Your task to perform on an android device: Open my contact list Image 0: 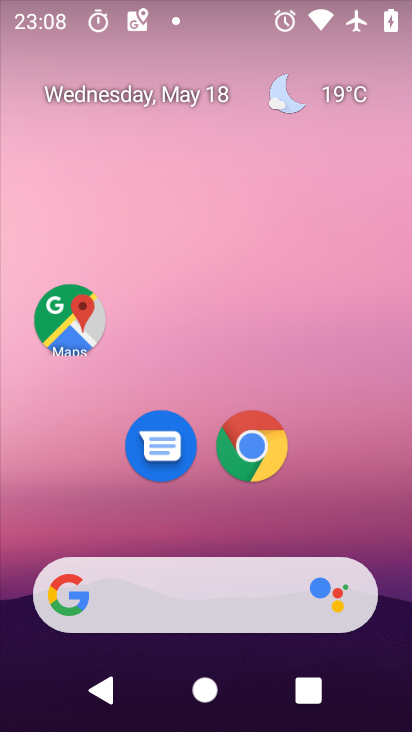
Step 0: press home button
Your task to perform on an android device: Open my contact list Image 1: 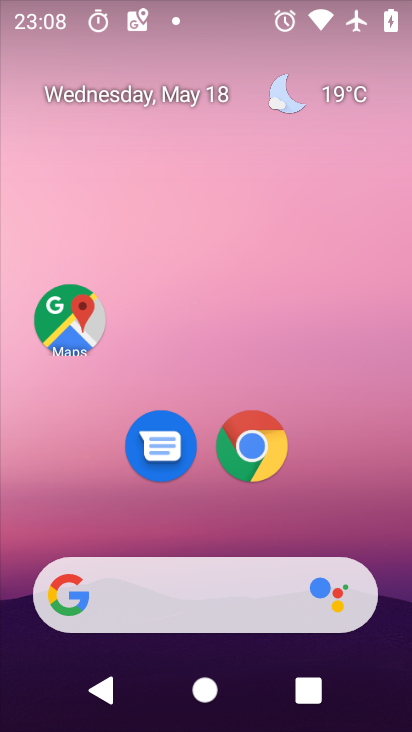
Step 1: drag from (174, 593) to (305, 158)
Your task to perform on an android device: Open my contact list Image 2: 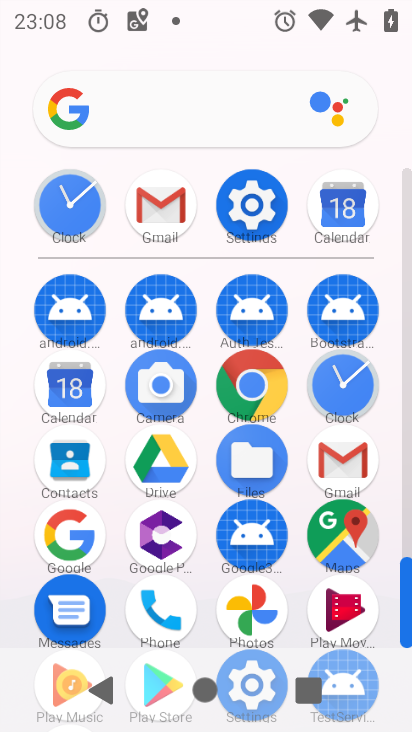
Step 2: click (65, 462)
Your task to perform on an android device: Open my contact list Image 3: 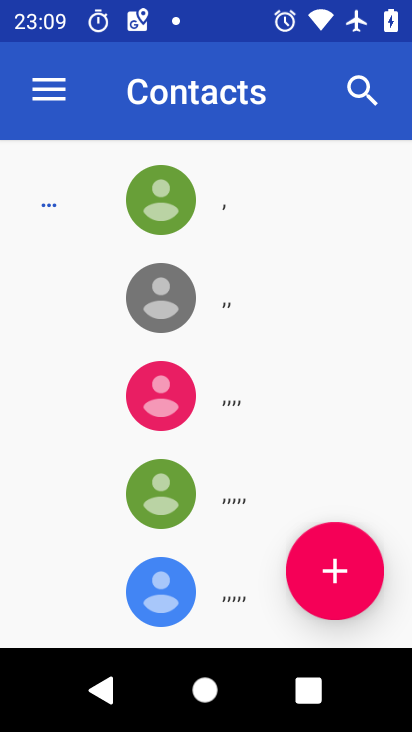
Step 3: task complete